Your task to perform on an android device: toggle improve location accuracy Image 0: 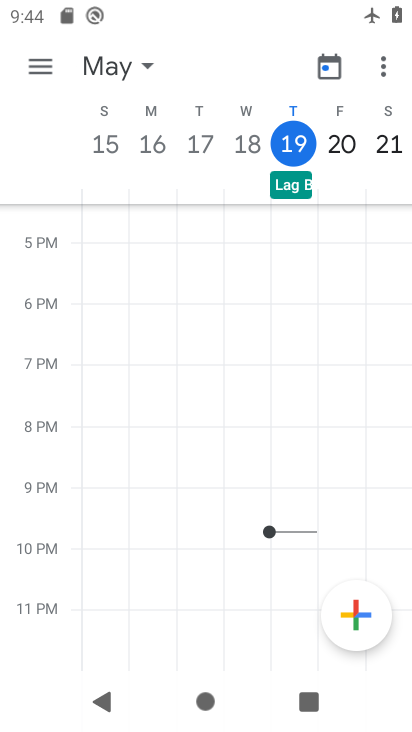
Step 0: press home button
Your task to perform on an android device: toggle improve location accuracy Image 1: 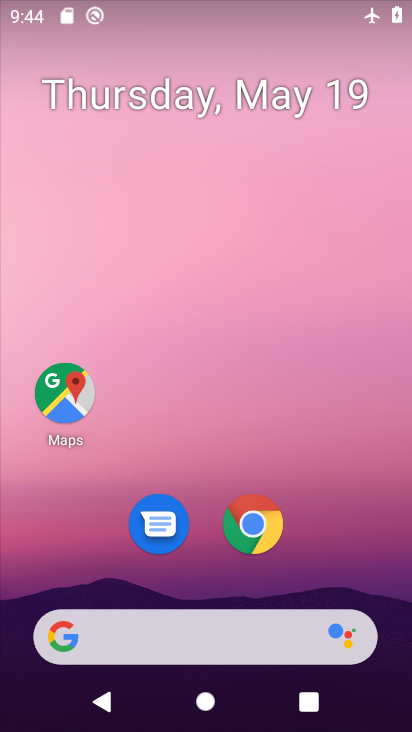
Step 1: drag from (230, 413) to (225, 42)
Your task to perform on an android device: toggle improve location accuracy Image 2: 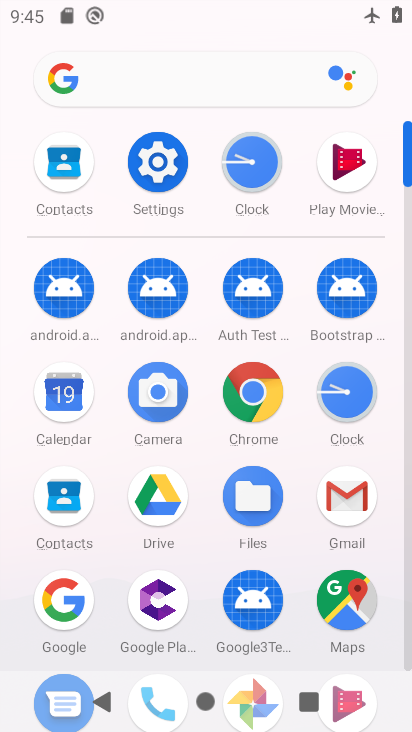
Step 2: click (153, 162)
Your task to perform on an android device: toggle improve location accuracy Image 3: 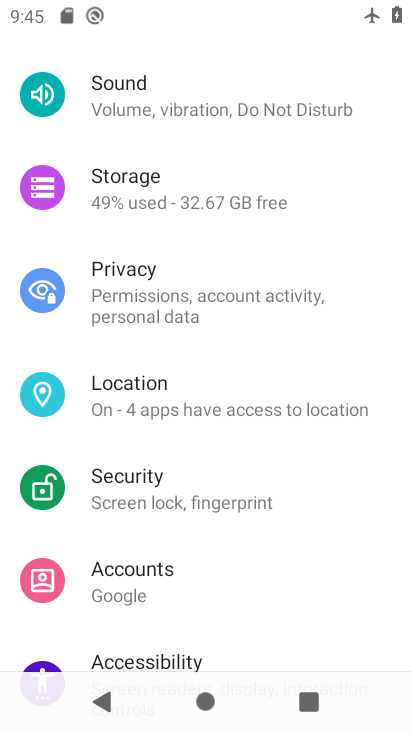
Step 3: click (187, 388)
Your task to perform on an android device: toggle improve location accuracy Image 4: 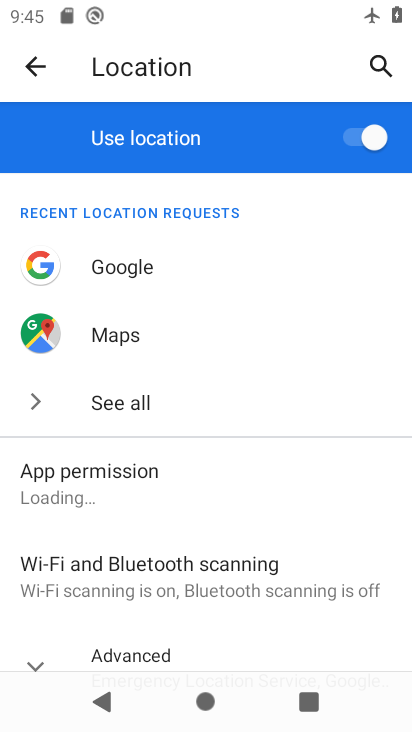
Step 4: drag from (196, 498) to (198, 216)
Your task to perform on an android device: toggle improve location accuracy Image 5: 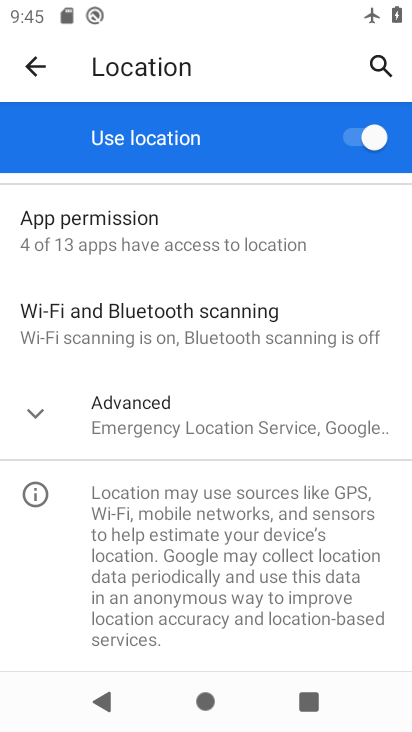
Step 5: click (33, 406)
Your task to perform on an android device: toggle improve location accuracy Image 6: 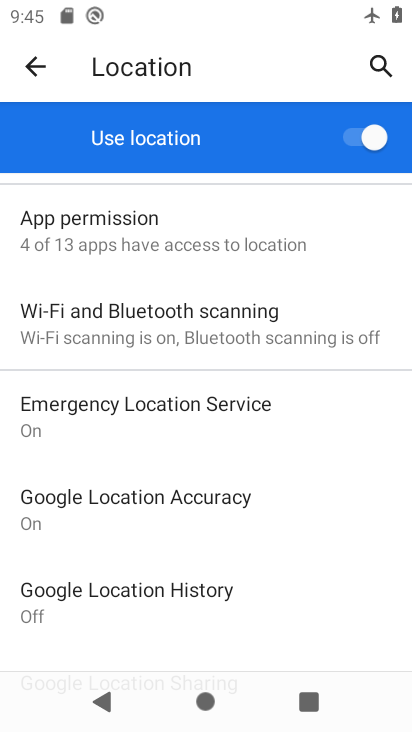
Step 6: click (60, 520)
Your task to perform on an android device: toggle improve location accuracy Image 7: 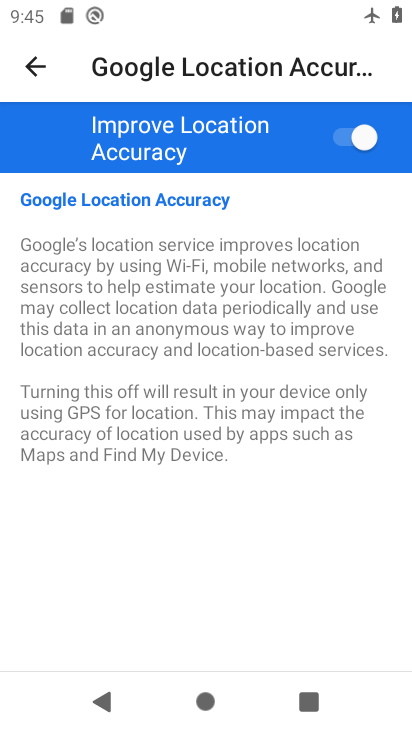
Step 7: click (363, 140)
Your task to perform on an android device: toggle improve location accuracy Image 8: 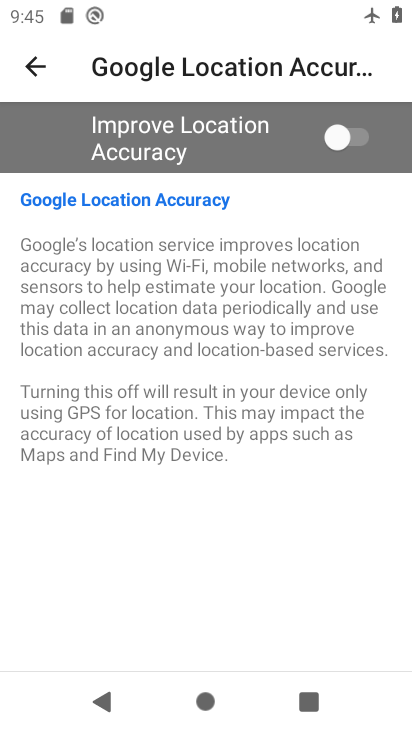
Step 8: task complete